Your task to perform on an android device: Open maps Image 0: 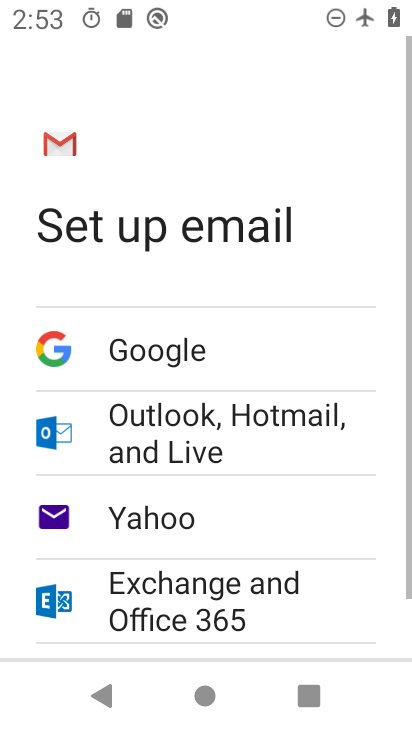
Step 0: press home button
Your task to perform on an android device: Open maps Image 1: 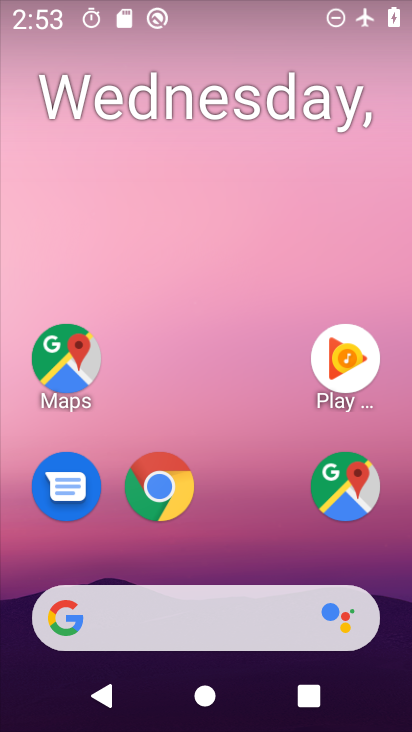
Step 1: drag from (256, 548) to (218, 229)
Your task to perform on an android device: Open maps Image 2: 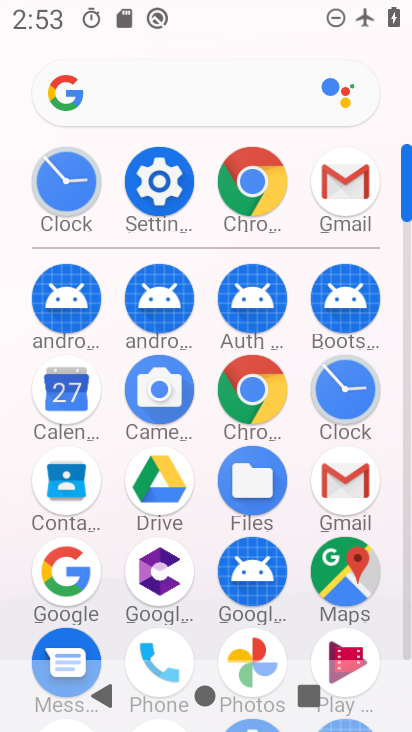
Step 2: click (338, 574)
Your task to perform on an android device: Open maps Image 3: 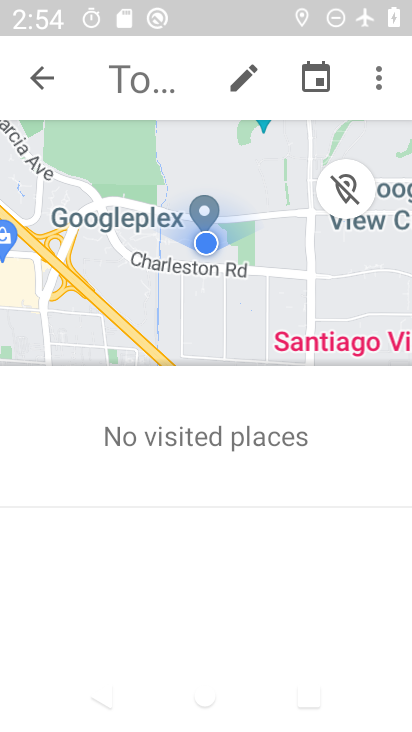
Step 3: task complete